Your task to perform on an android device: change notifications settings Image 0: 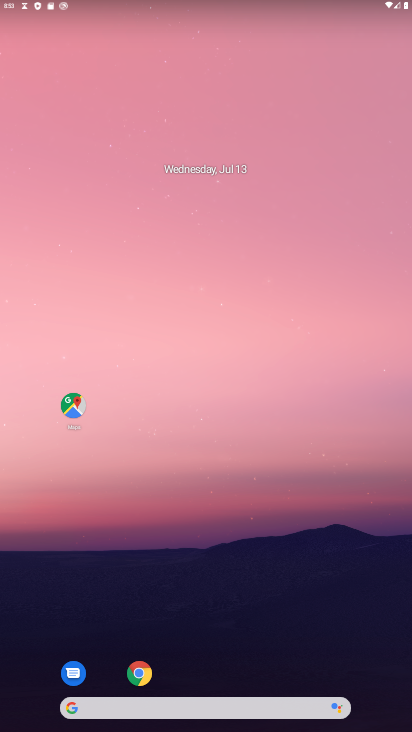
Step 0: drag from (187, 686) to (175, 400)
Your task to perform on an android device: change notifications settings Image 1: 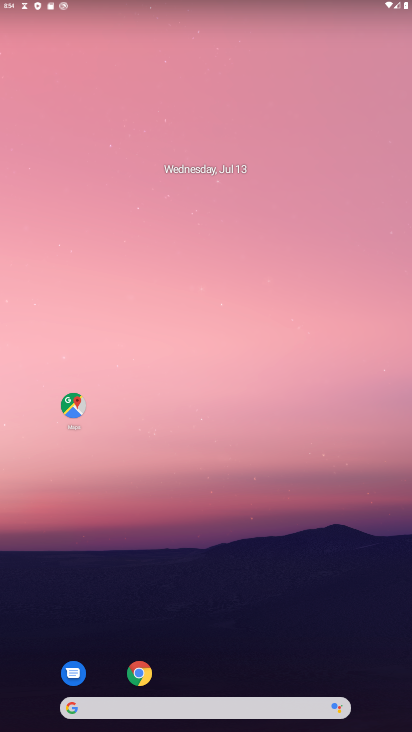
Step 1: drag from (212, 700) to (224, 324)
Your task to perform on an android device: change notifications settings Image 2: 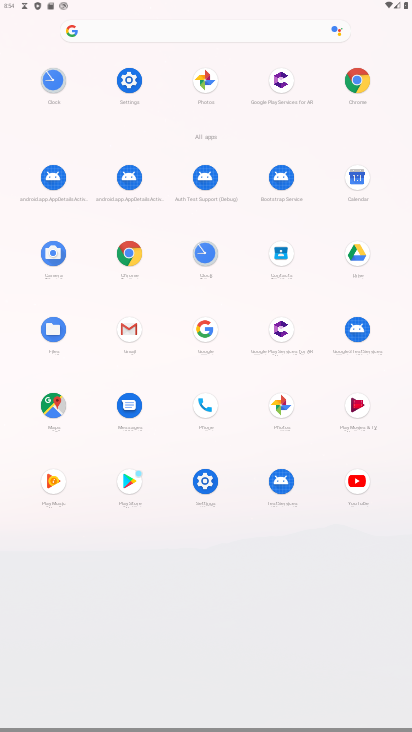
Step 2: click (136, 81)
Your task to perform on an android device: change notifications settings Image 3: 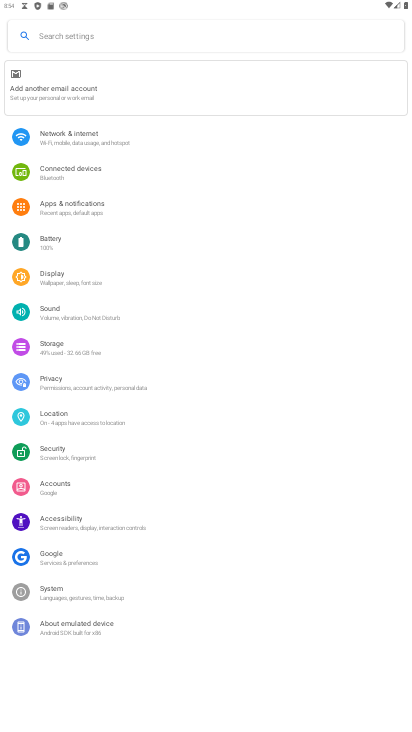
Step 3: click (79, 214)
Your task to perform on an android device: change notifications settings Image 4: 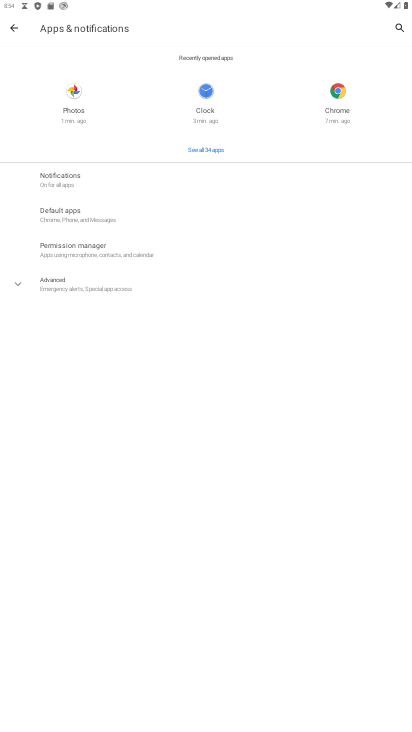
Step 4: click (71, 187)
Your task to perform on an android device: change notifications settings Image 5: 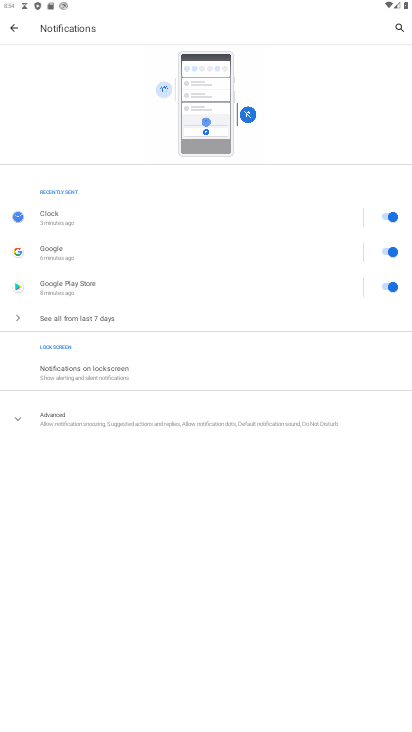
Step 5: click (58, 420)
Your task to perform on an android device: change notifications settings Image 6: 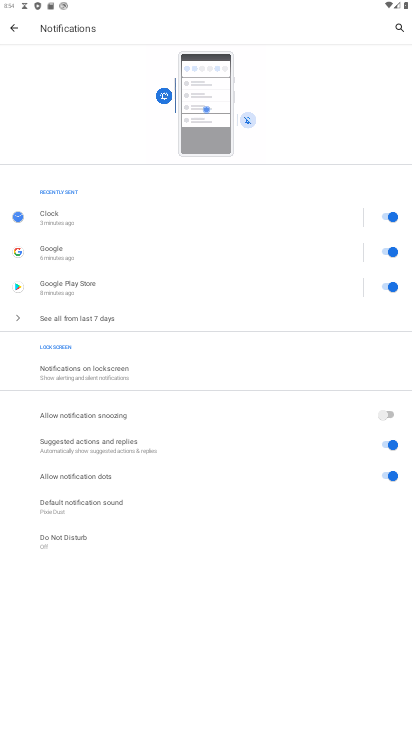
Step 6: click (391, 414)
Your task to perform on an android device: change notifications settings Image 7: 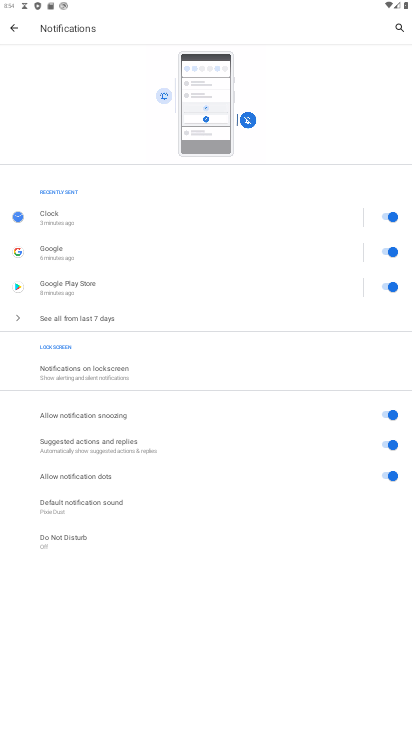
Step 7: task complete